Your task to perform on an android device: turn off priority inbox in the gmail app Image 0: 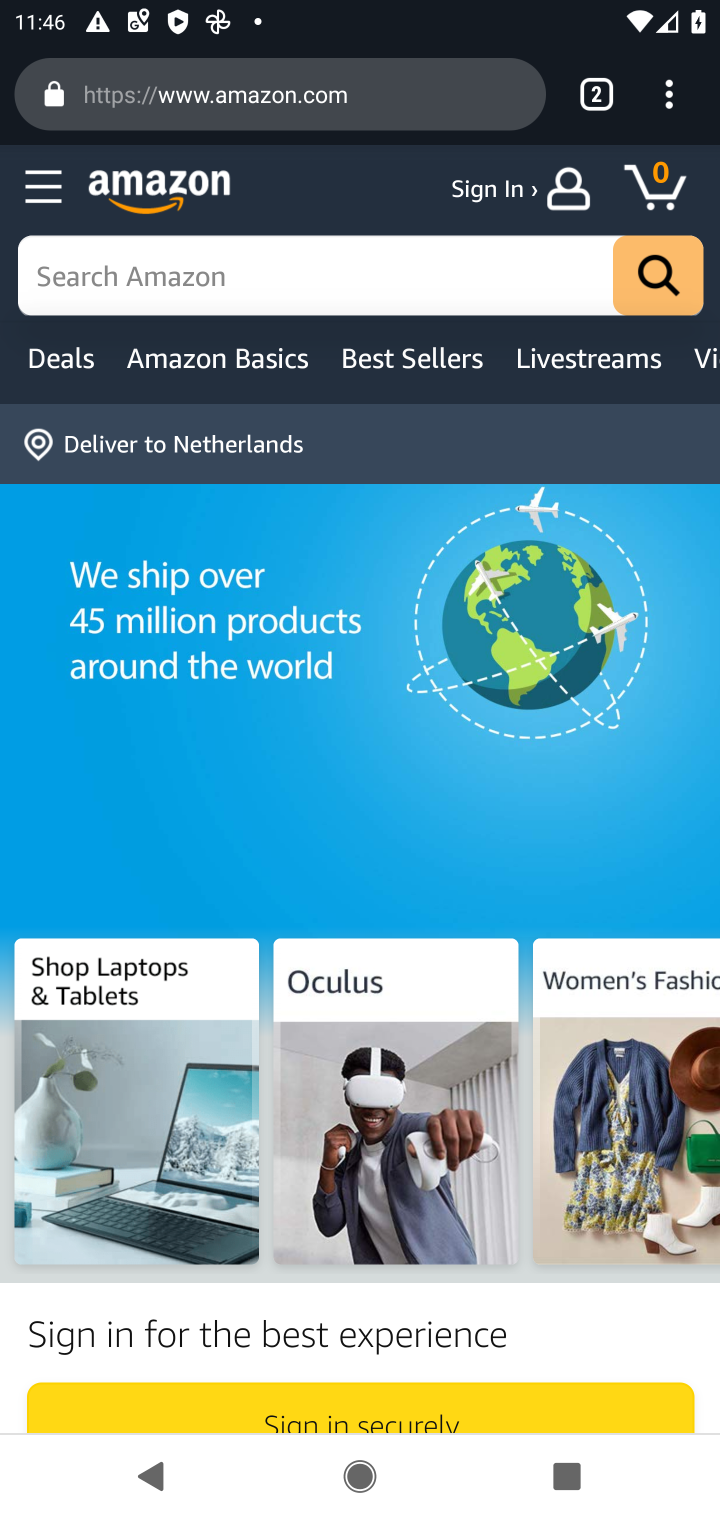
Step 0: press home button
Your task to perform on an android device: turn off priority inbox in the gmail app Image 1: 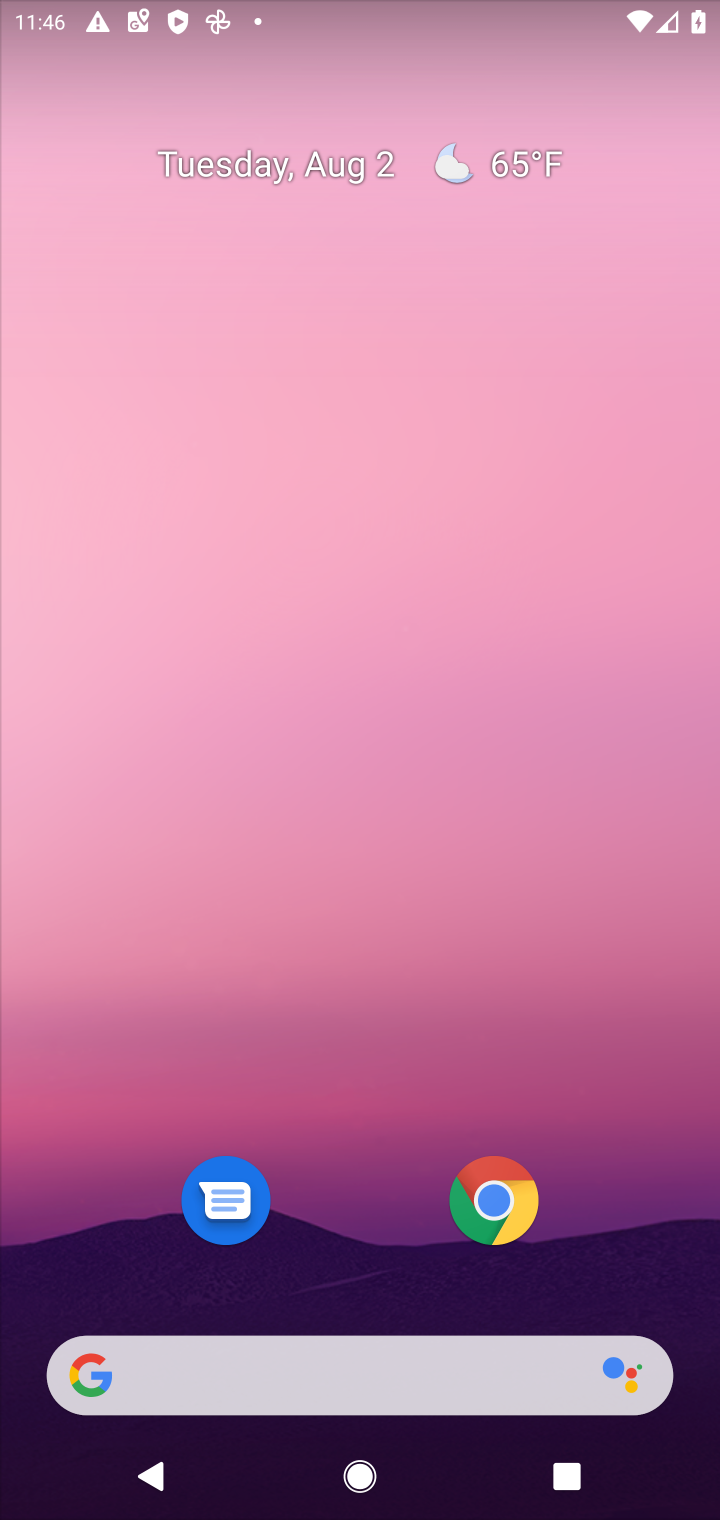
Step 1: drag from (675, 1269) to (580, 261)
Your task to perform on an android device: turn off priority inbox in the gmail app Image 2: 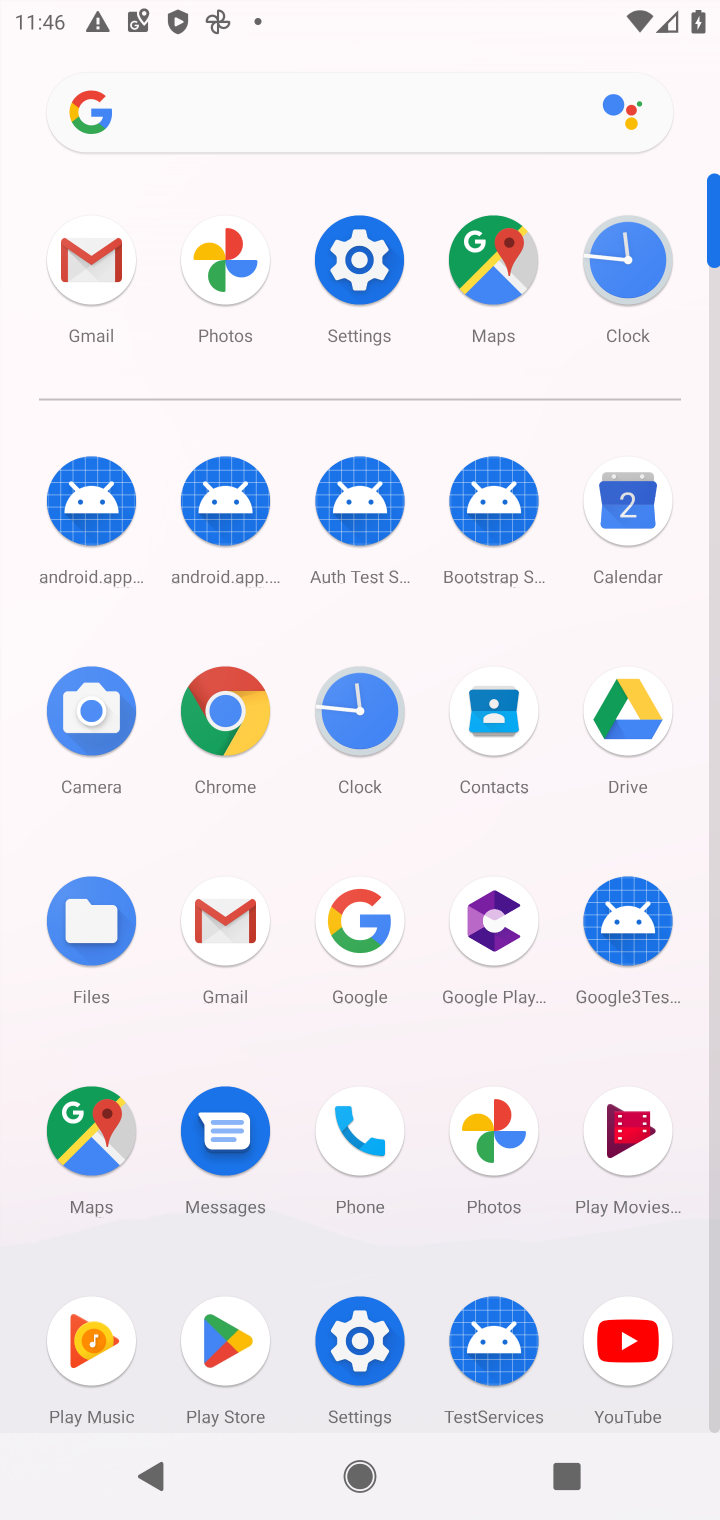
Step 2: click (227, 927)
Your task to perform on an android device: turn off priority inbox in the gmail app Image 3: 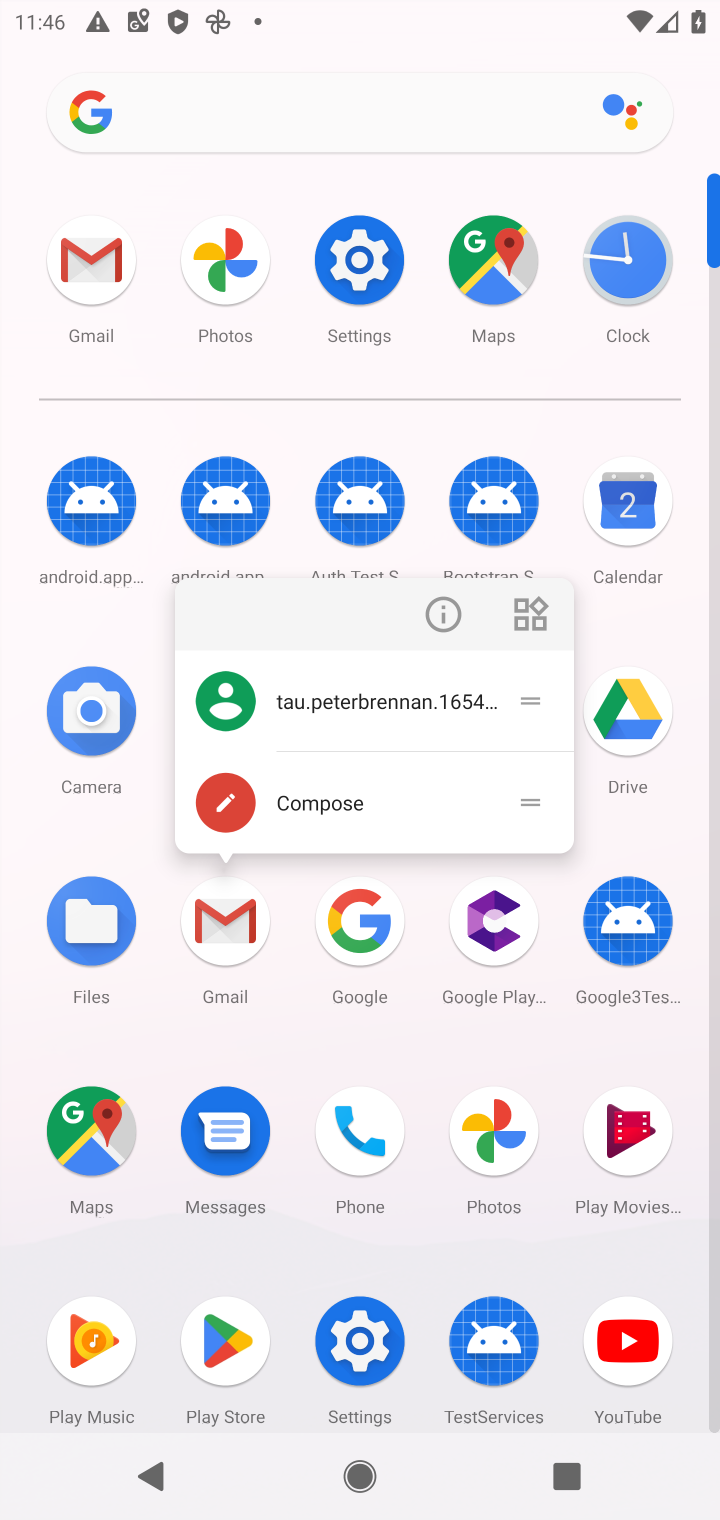
Step 3: click (220, 923)
Your task to perform on an android device: turn off priority inbox in the gmail app Image 4: 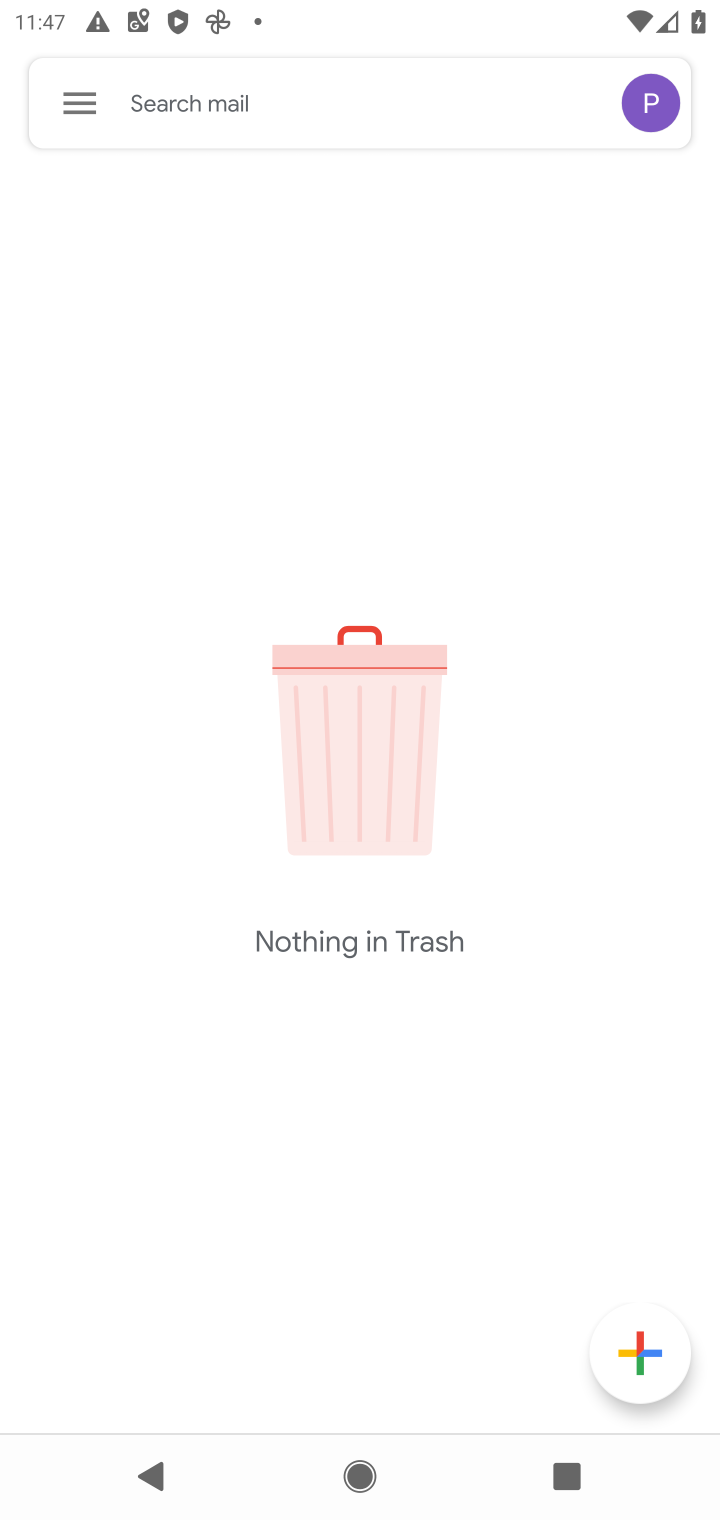
Step 4: click (73, 83)
Your task to perform on an android device: turn off priority inbox in the gmail app Image 5: 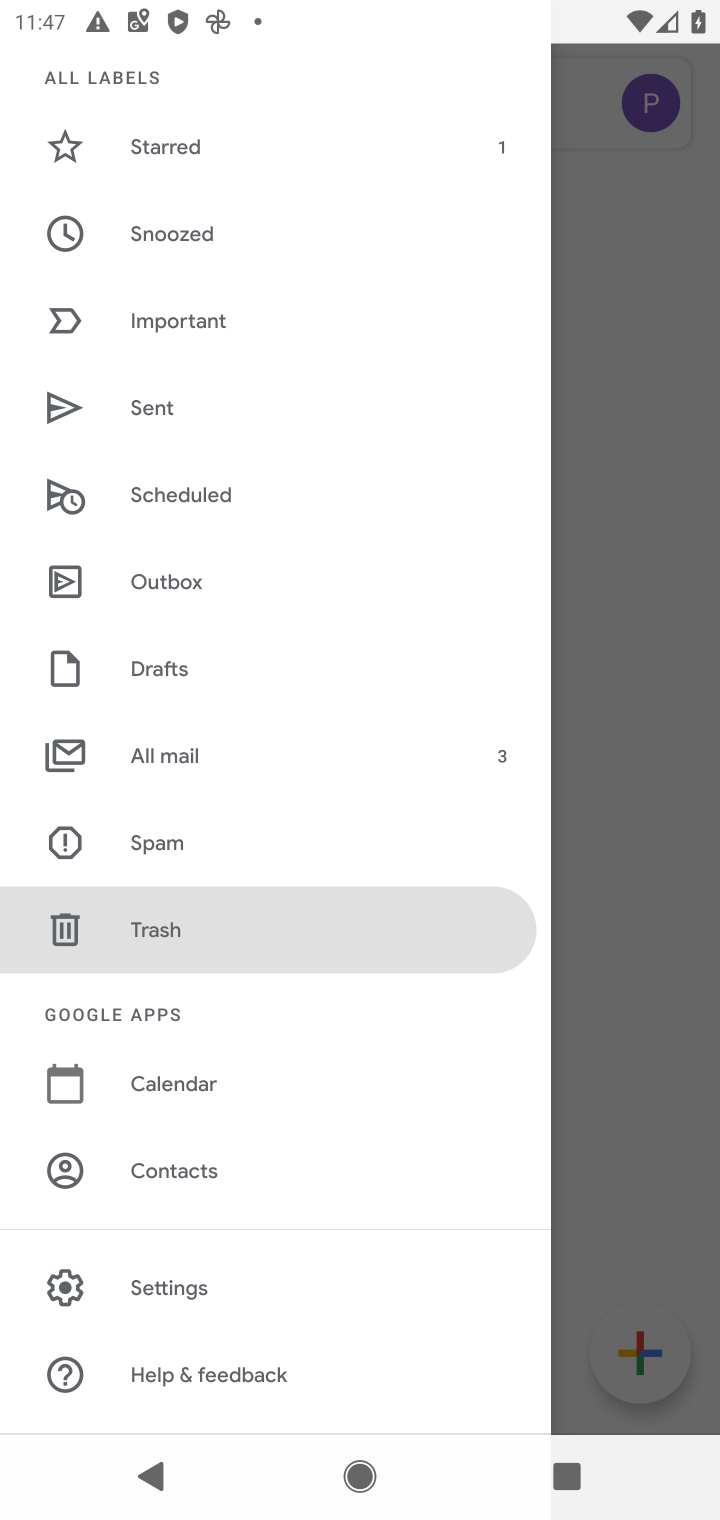
Step 5: click (157, 1280)
Your task to perform on an android device: turn off priority inbox in the gmail app Image 6: 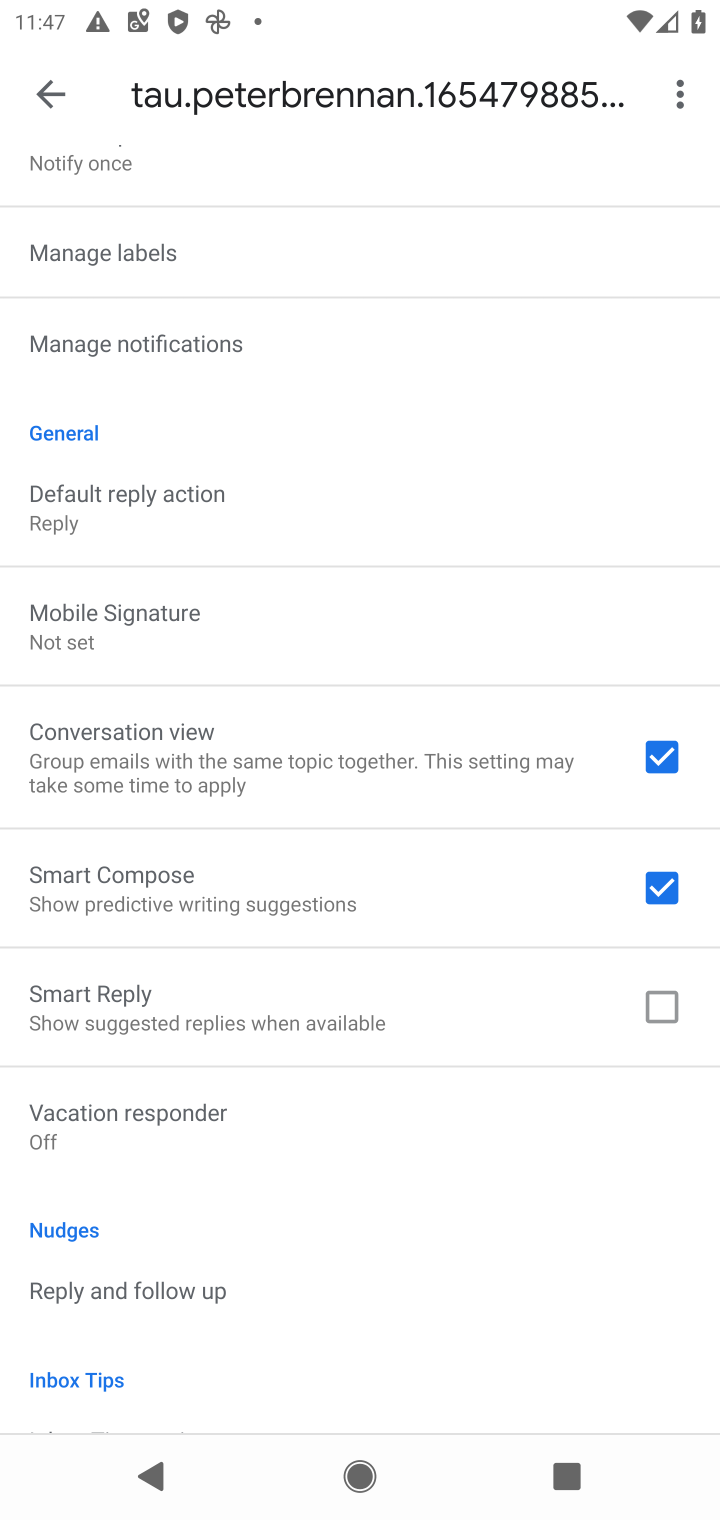
Step 6: drag from (402, 394) to (430, 1117)
Your task to perform on an android device: turn off priority inbox in the gmail app Image 7: 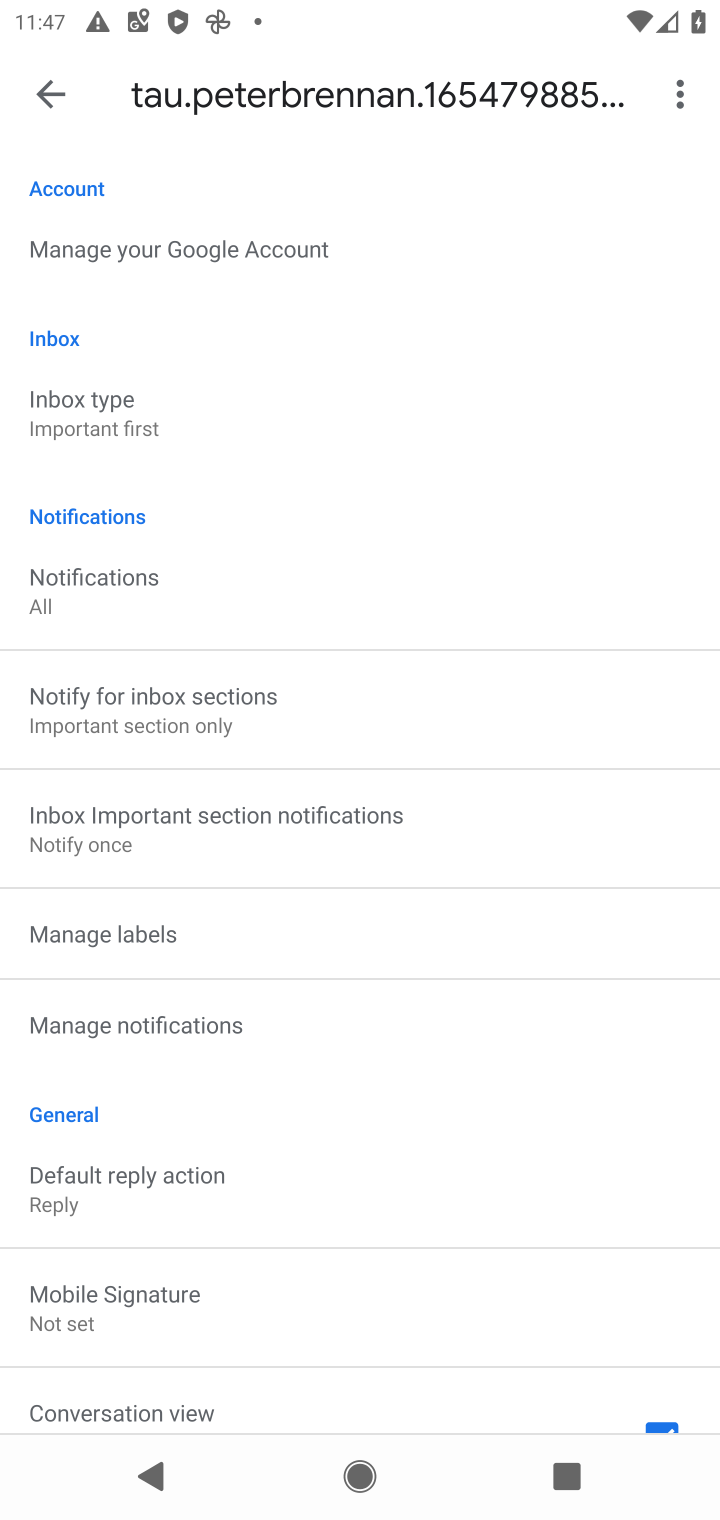
Step 7: click (65, 418)
Your task to perform on an android device: turn off priority inbox in the gmail app Image 8: 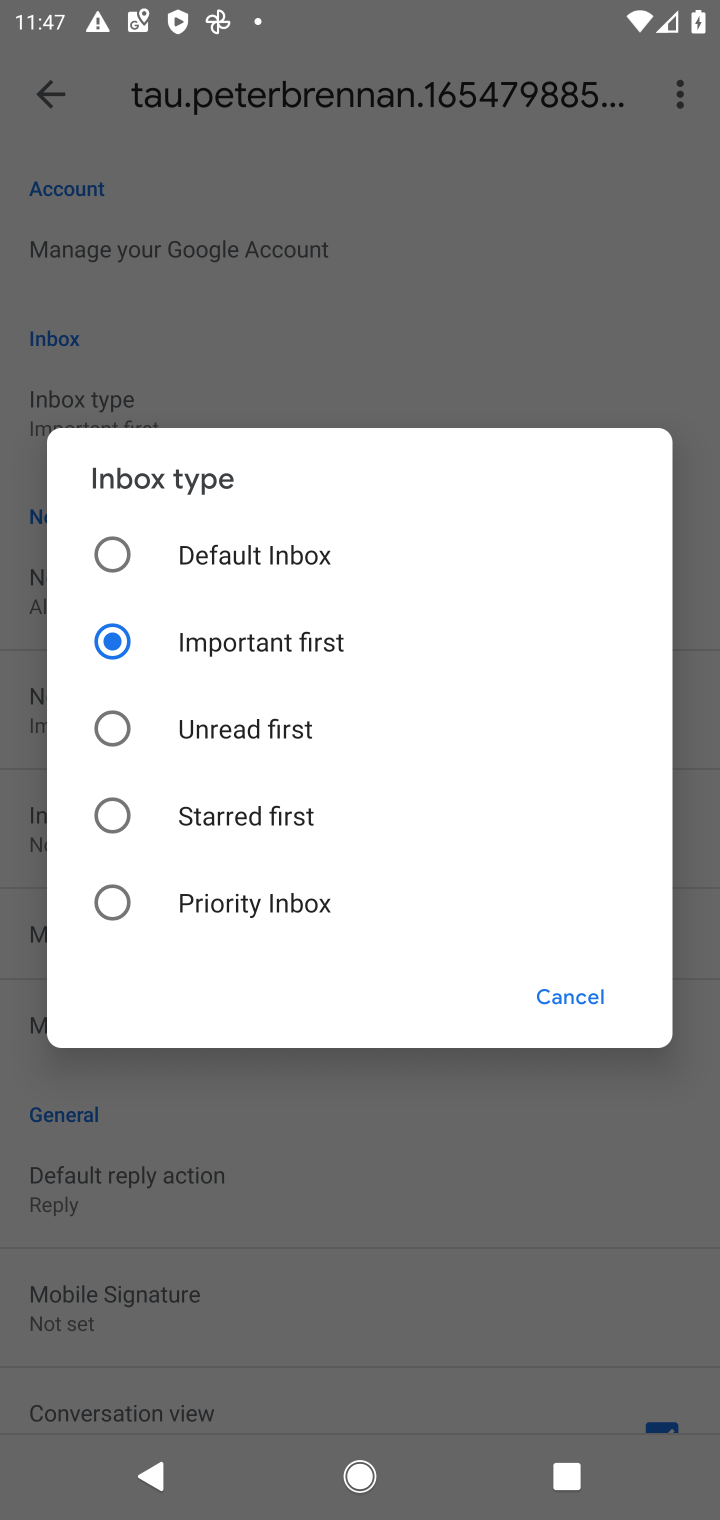
Step 8: click (120, 546)
Your task to perform on an android device: turn off priority inbox in the gmail app Image 9: 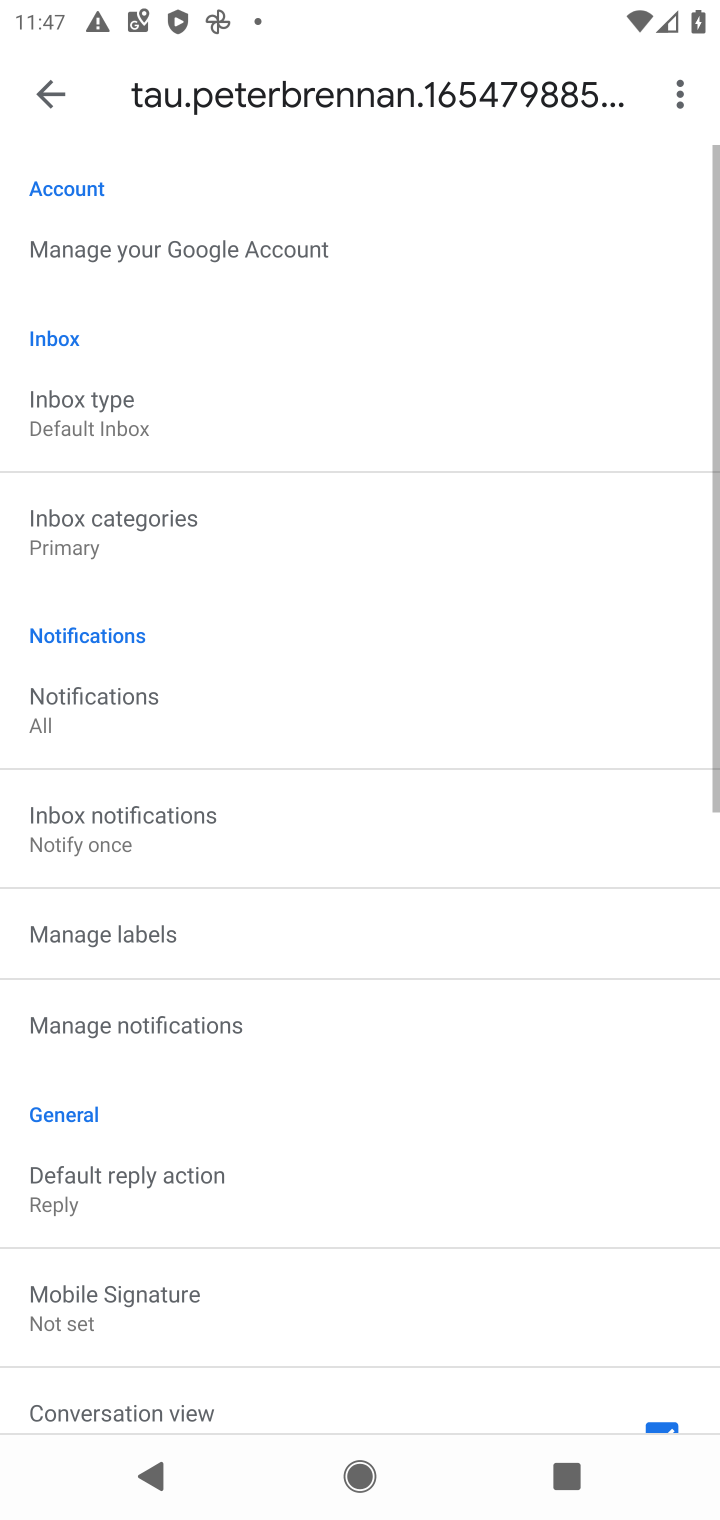
Step 9: task complete